Your task to perform on an android device: Show me productivity apps on the Play Store Image 0: 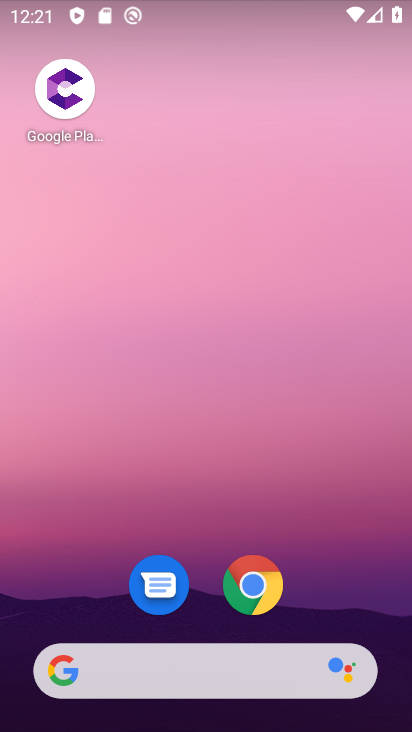
Step 0: drag from (219, 375) to (256, 34)
Your task to perform on an android device: Show me productivity apps on the Play Store Image 1: 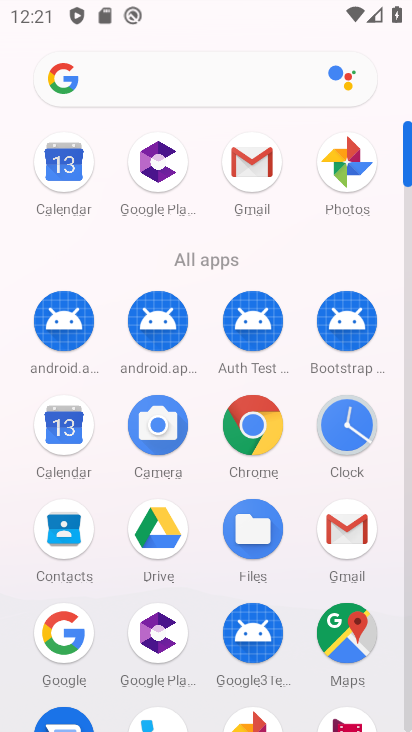
Step 1: drag from (206, 583) to (223, 211)
Your task to perform on an android device: Show me productivity apps on the Play Store Image 2: 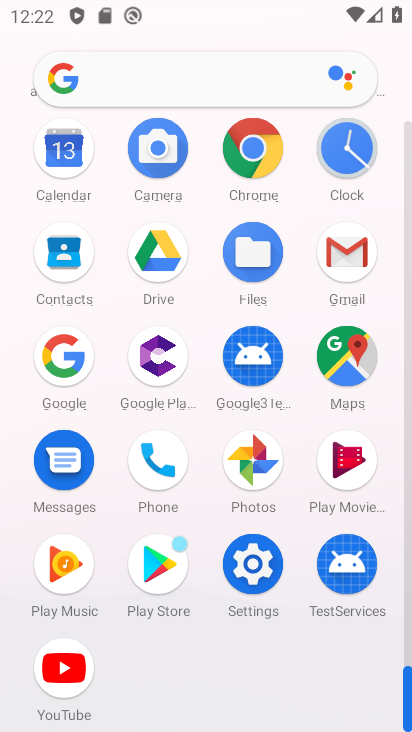
Step 2: click (167, 566)
Your task to perform on an android device: Show me productivity apps on the Play Store Image 3: 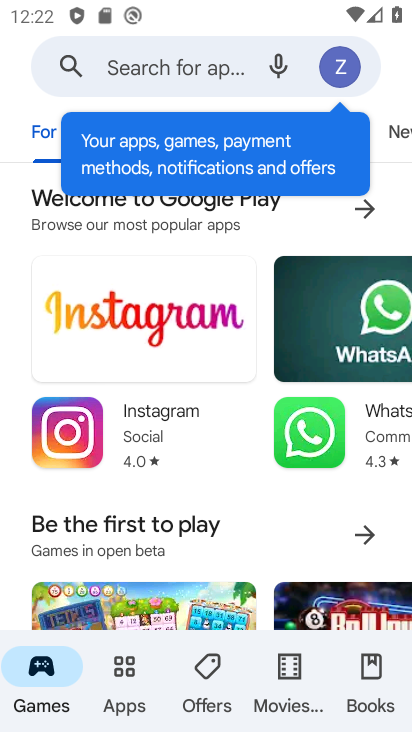
Step 3: click (123, 674)
Your task to perform on an android device: Show me productivity apps on the Play Store Image 4: 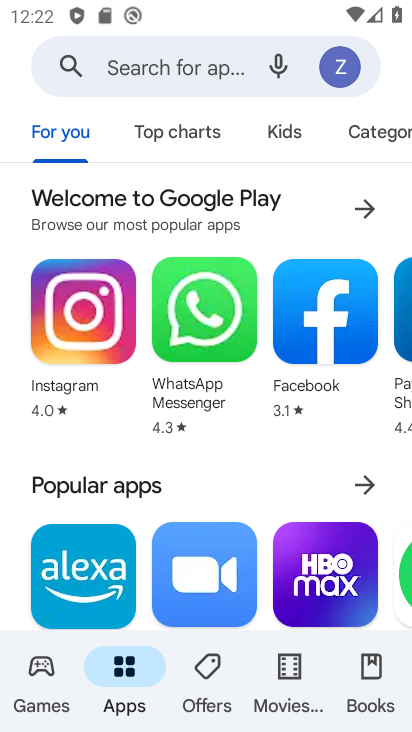
Step 4: click (385, 120)
Your task to perform on an android device: Show me productivity apps on the Play Store Image 5: 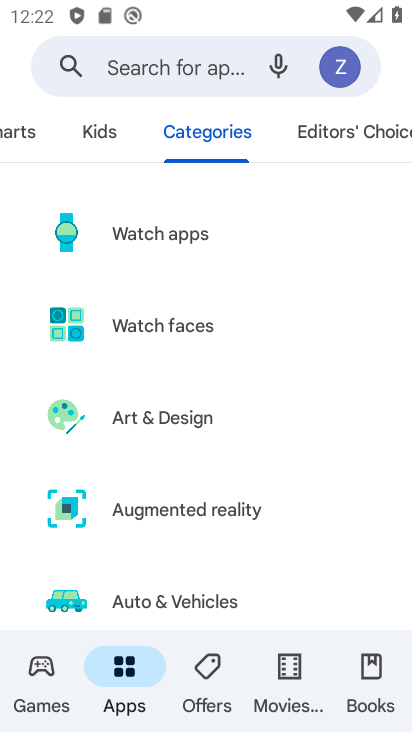
Step 5: drag from (287, 582) to (264, 95)
Your task to perform on an android device: Show me productivity apps on the Play Store Image 6: 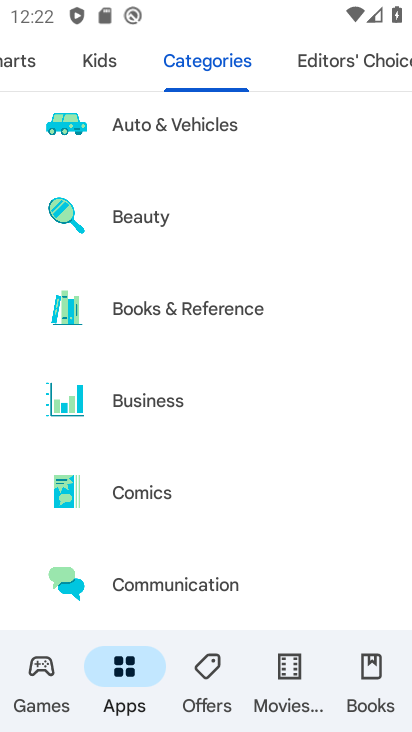
Step 6: drag from (294, 590) to (257, 96)
Your task to perform on an android device: Show me productivity apps on the Play Store Image 7: 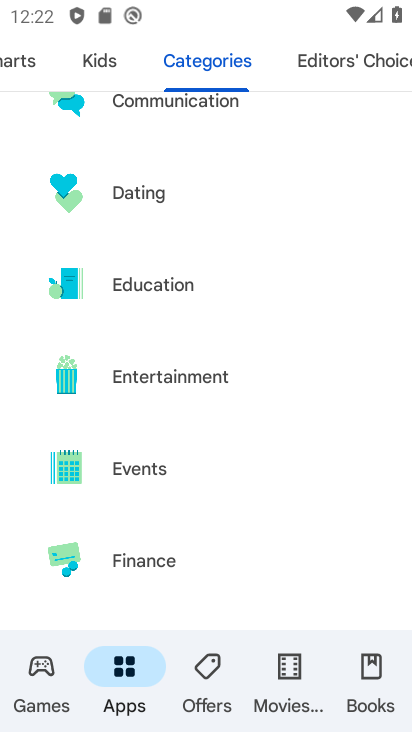
Step 7: drag from (273, 572) to (273, 143)
Your task to perform on an android device: Show me productivity apps on the Play Store Image 8: 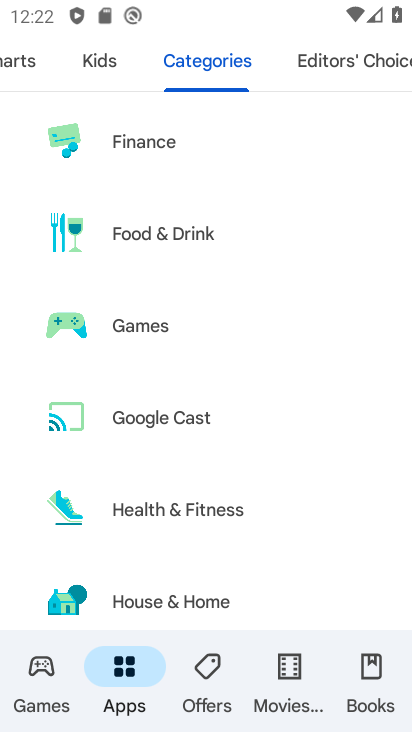
Step 8: drag from (282, 595) to (304, 106)
Your task to perform on an android device: Show me productivity apps on the Play Store Image 9: 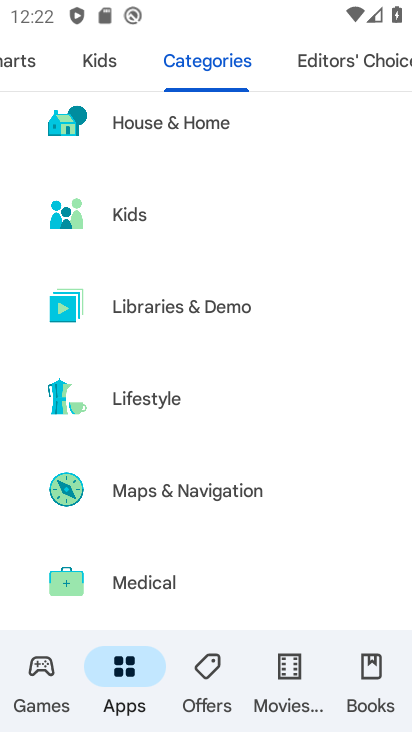
Step 9: drag from (305, 573) to (319, 105)
Your task to perform on an android device: Show me productivity apps on the Play Store Image 10: 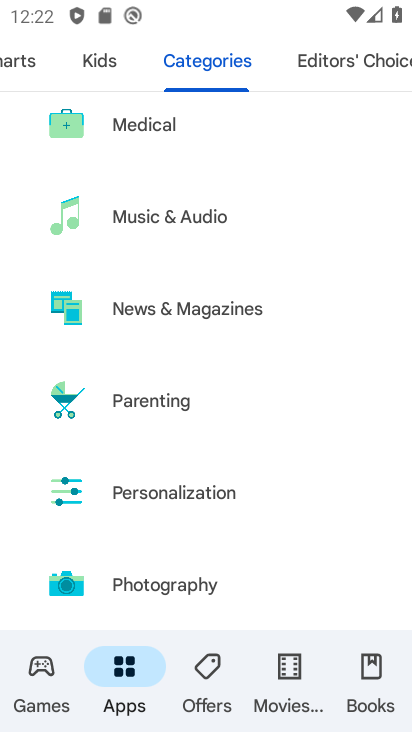
Step 10: drag from (297, 581) to (304, 208)
Your task to perform on an android device: Show me productivity apps on the Play Store Image 11: 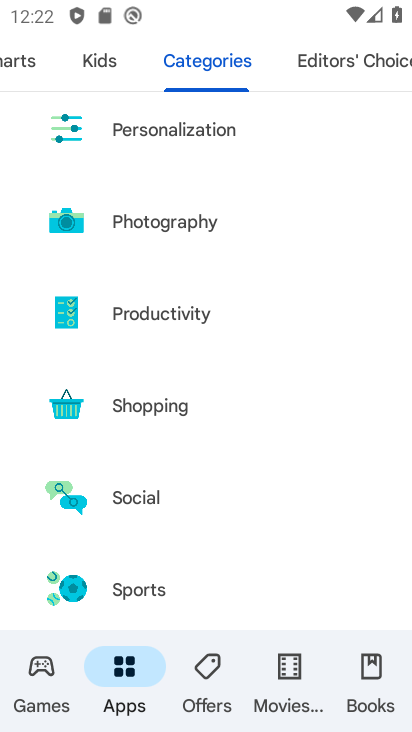
Step 11: click (186, 312)
Your task to perform on an android device: Show me productivity apps on the Play Store Image 12: 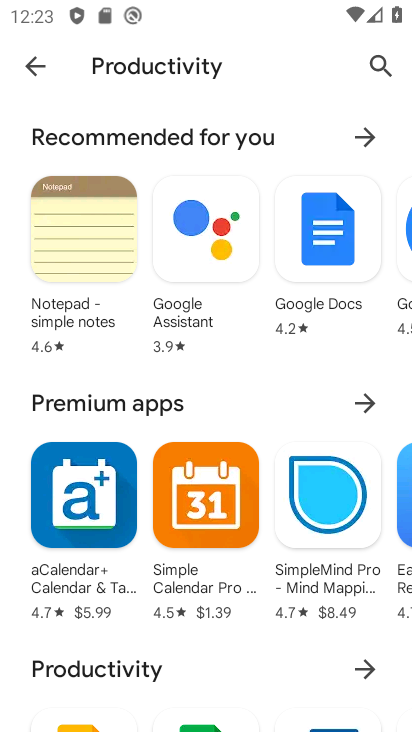
Step 12: click (369, 672)
Your task to perform on an android device: Show me productivity apps on the Play Store Image 13: 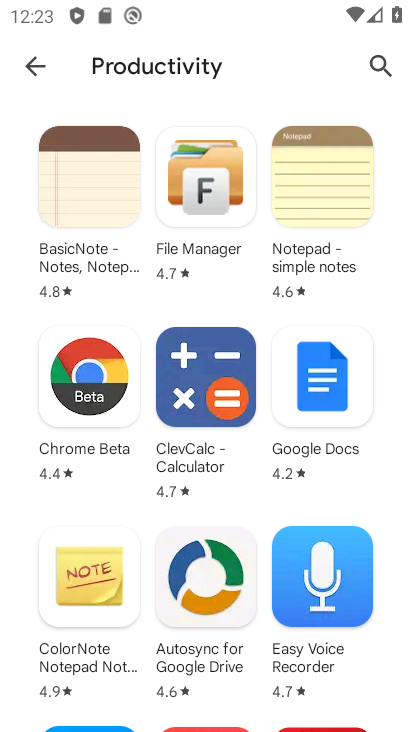
Step 13: task complete